Your task to perform on an android device: turn off picture-in-picture Image 0: 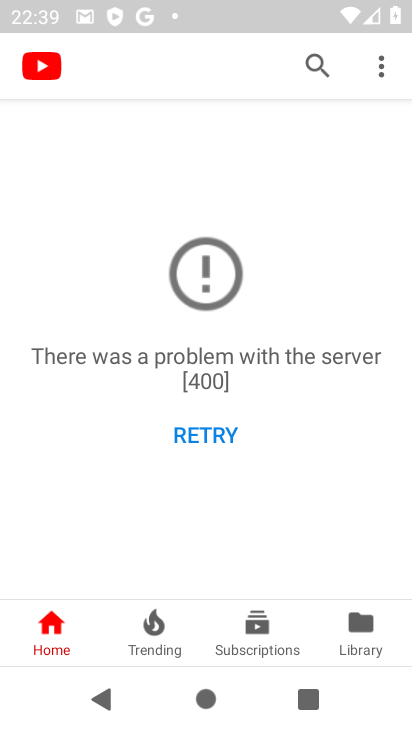
Step 0: press home button
Your task to perform on an android device: turn off picture-in-picture Image 1: 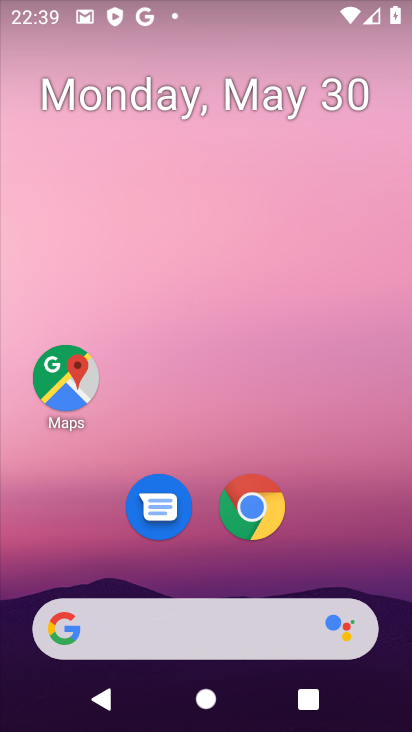
Step 1: drag from (343, 545) to (363, 157)
Your task to perform on an android device: turn off picture-in-picture Image 2: 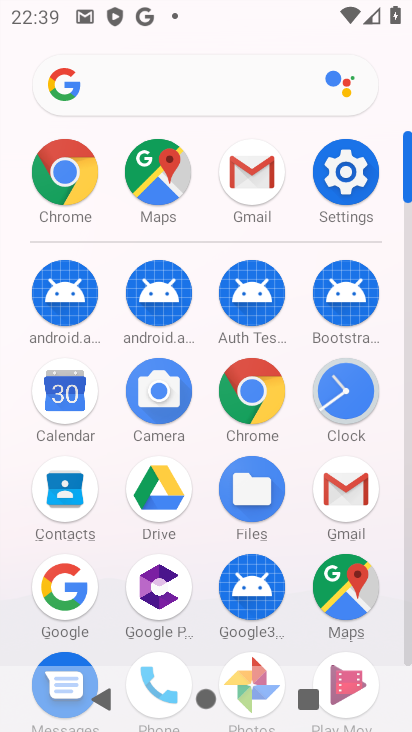
Step 2: click (352, 191)
Your task to perform on an android device: turn off picture-in-picture Image 3: 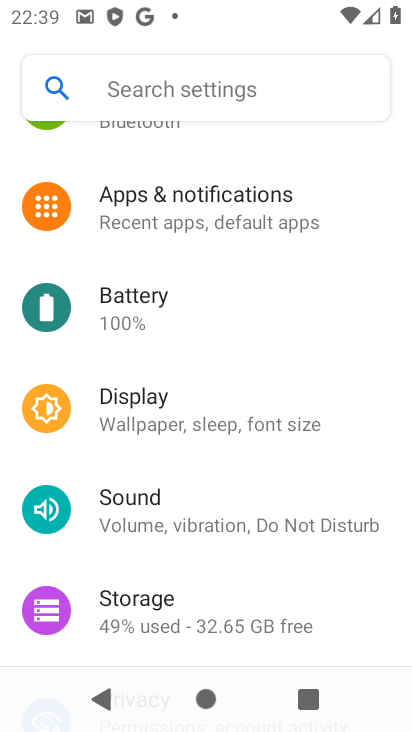
Step 3: drag from (353, 190) to (354, 339)
Your task to perform on an android device: turn off picture-in-picture Image 4: 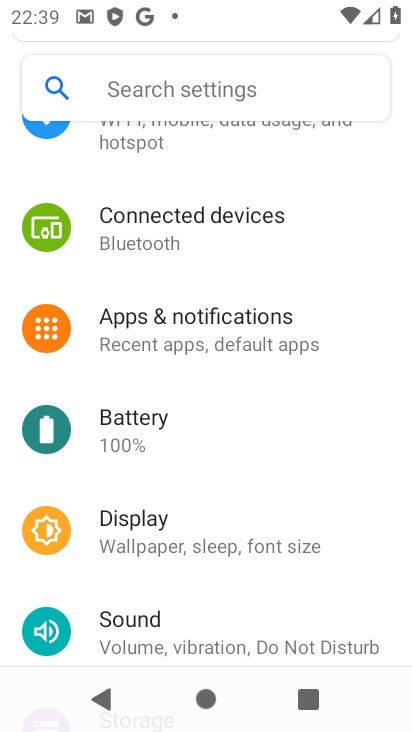
Step 4: drag from (334, 167) to (344, 329)
Your task to perform on an android device: turn off picture-in-picture Image 5: 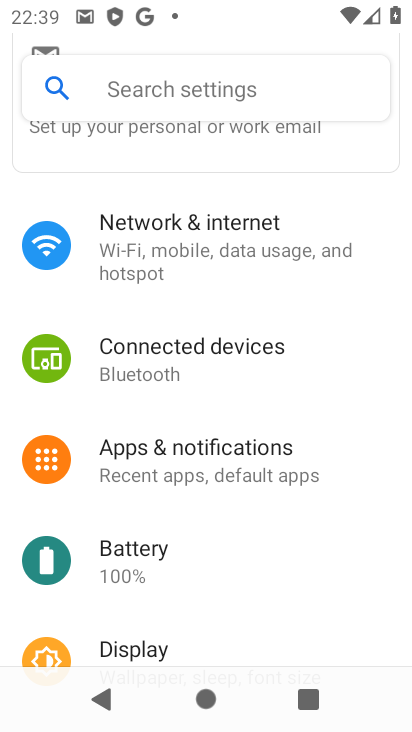
Step 5: drag from (348, 415) to (340, 259)
Your task to perform on an android device: turn off picture-in-picture Image 6: 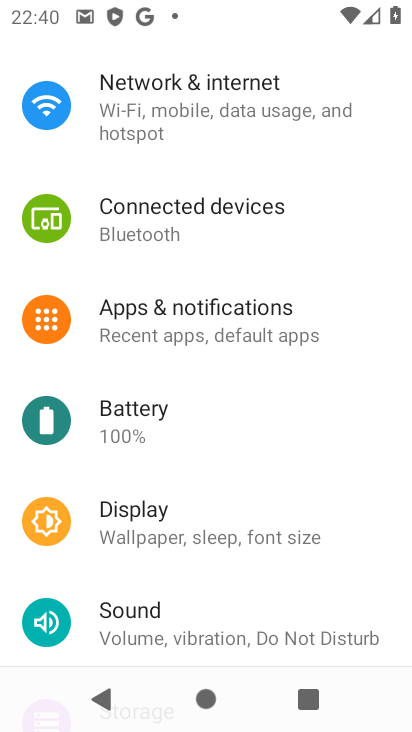
Step 6: drag from (331, 436) to (331, 319)
Your task to perform on an android device: turn off picture-in-picture Image 7: 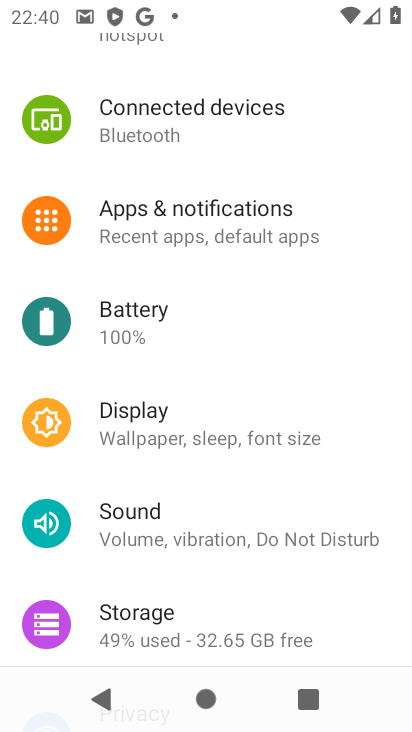
Step 7: click (267, 225)
Your task to perform on an android device: turn off picture-in-picture Image 8: 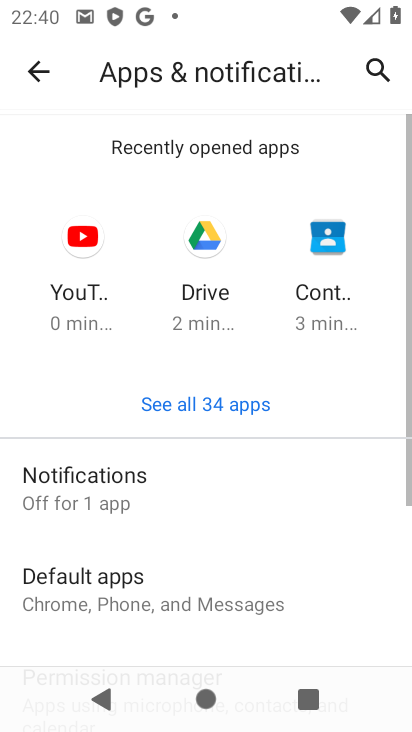
Step 8: drag from (307, 487) to (311, 368)
Your task to perform on an android device: turn off picture-in-picture Image 9: 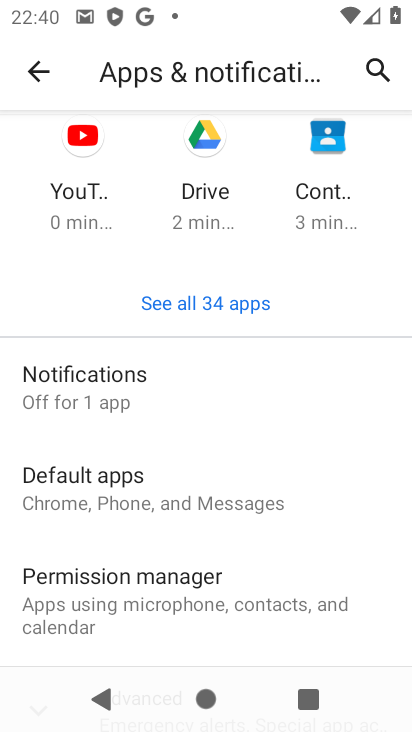
Step 9: drag from (322, 510) to (330, 387)
Your task to perform on an android device: turn off picture-in-picture Image 10: 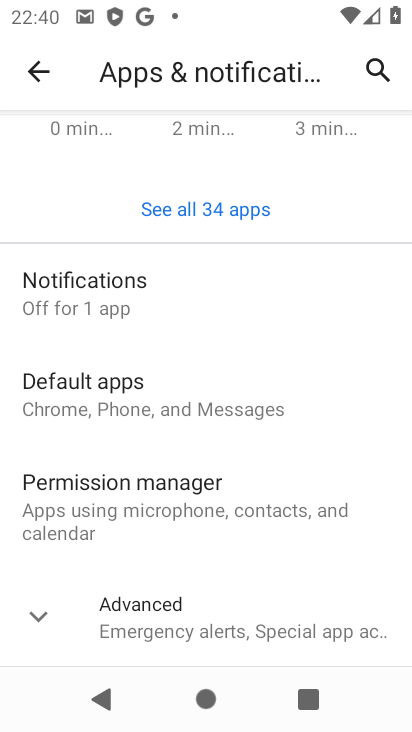
Step 10: drag from (315, 557) to (325, 427)
Your task to perform on an android device: turn off picture-in-picture Image 11: 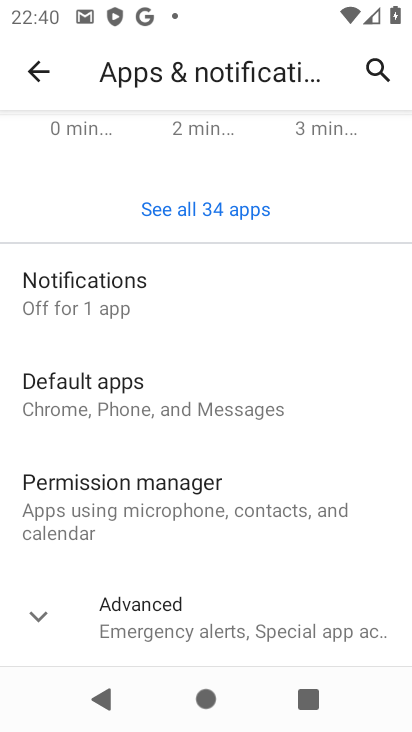
Step 11: click (224, 608)
Your task to perform on an android device: turn off picture-in-picture Image 12: 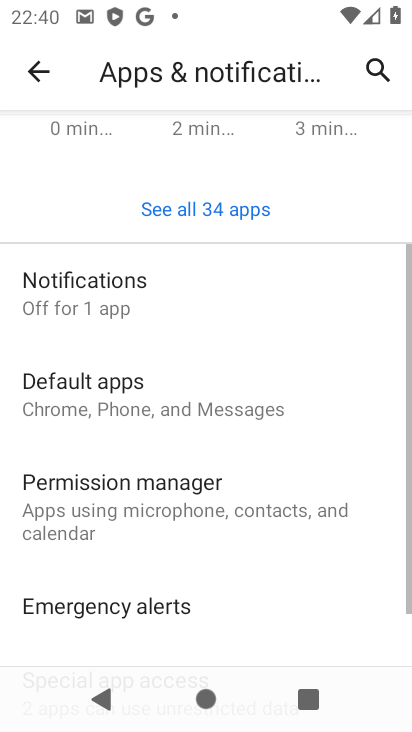
Step 12: drag from (321, 565) to (322, 372)
Your task to perform on an android device: turn off picture-in-picture Image 13: 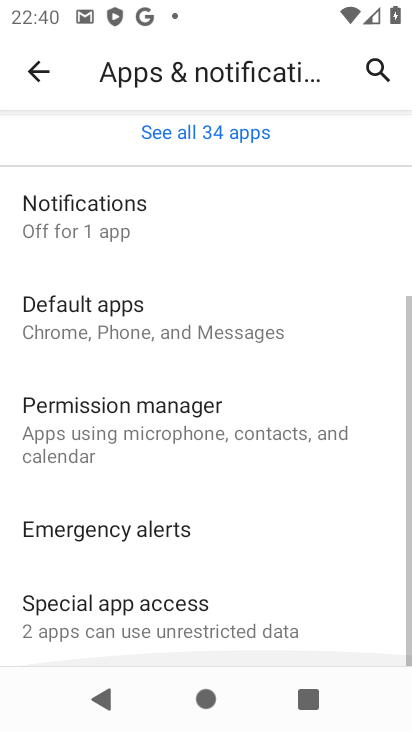
Step 13: click (255, 599)
Your task to perform on an android device: turn off picture-in-picture Image 14: 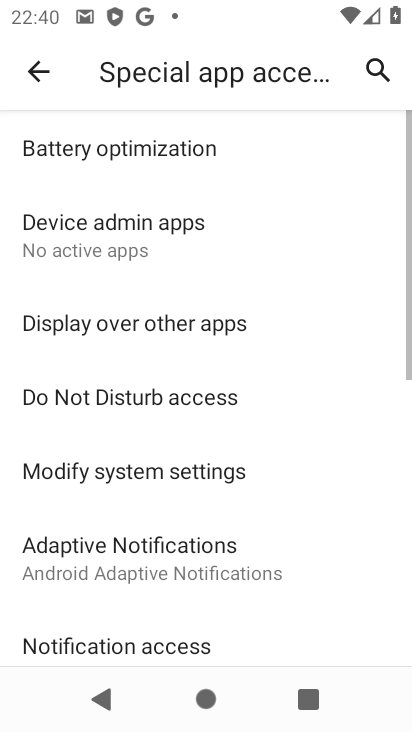
Step 14: drag from (331, 568) to (308, 425)
Your task to perform on an android device: turn off picture-in-picture Image 15: 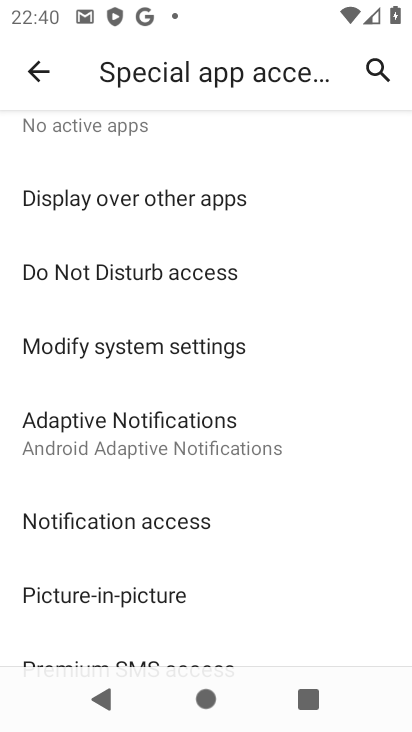
Step 15: drag from (298, 537) to (302, 319)
Your task to perform on an android device: turn off picture-in-picture Image 16: 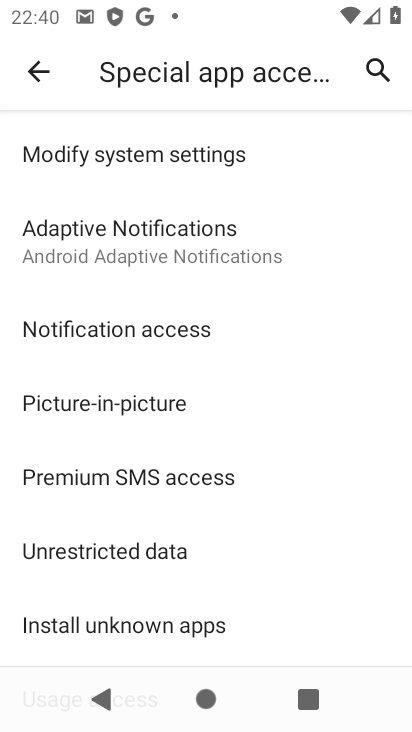
Step 16: click (180, 407)
Your task to perform on an android device: turn off picture-in-picture Image 17: 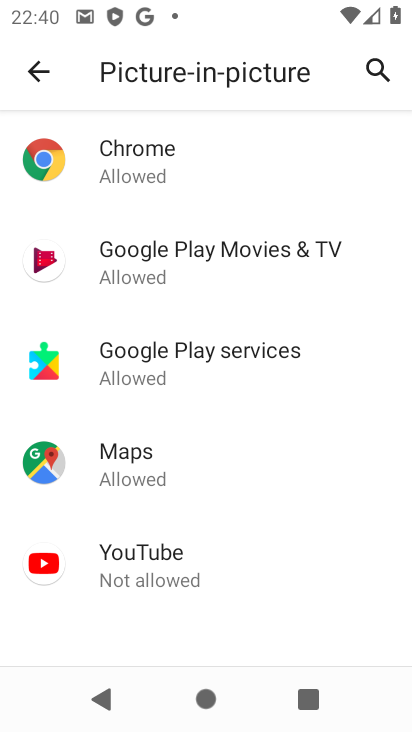
Step 17: click (180, 561)
Your task to perform on an android device: turn off picture-in-picture Image 18: 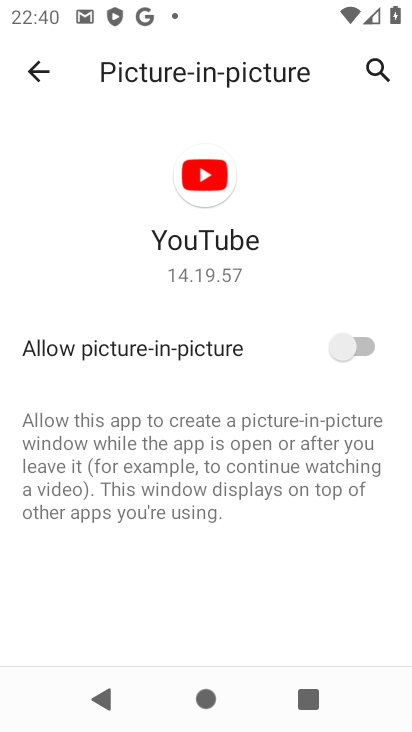
Step 18: task complete